Your task to perform on an android device: open a new tab in the chrome app Image 0: 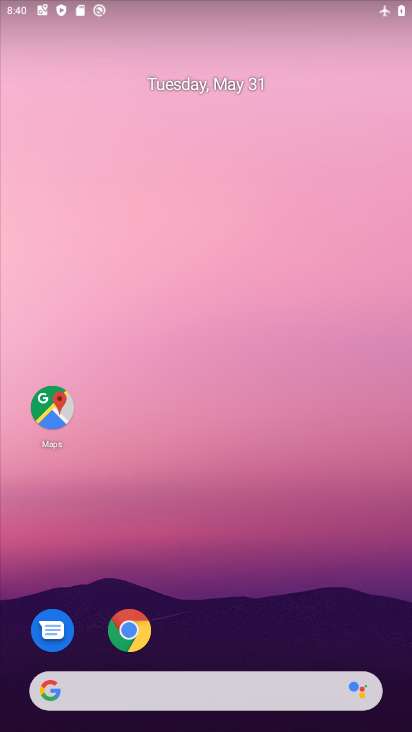
Step 0: click (125, 623)
Your task to perform on an android device: open a new tab in the chrome app Image 1: 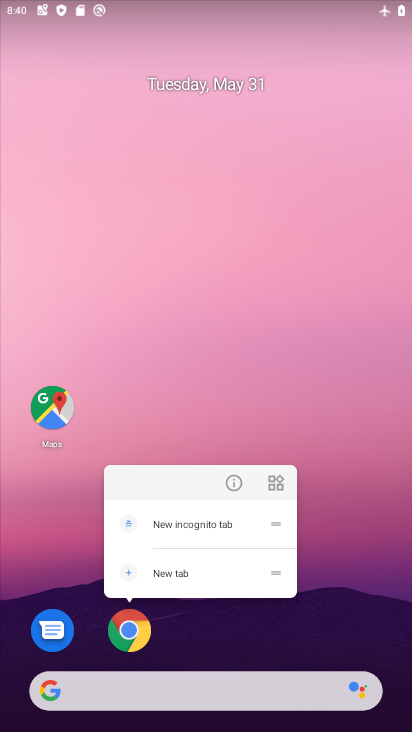
Step 1: click (128, 622)
Your task to perform on an android device: open a new tab in the chrome app Image 2: 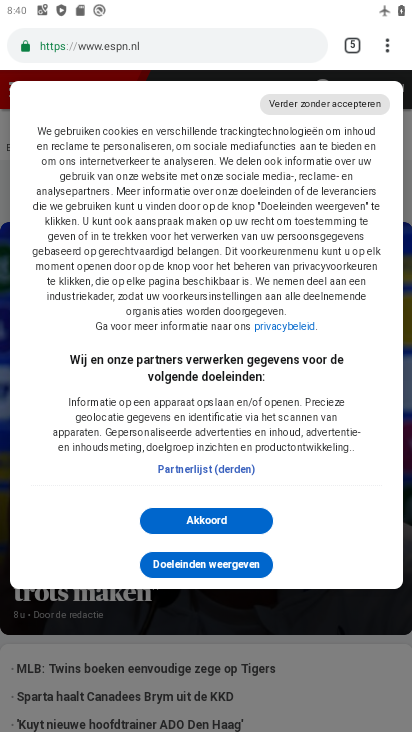
Step 2: click (396, 39)
Your task to perform on an android device: open a new tab in the chrome app Image 3: 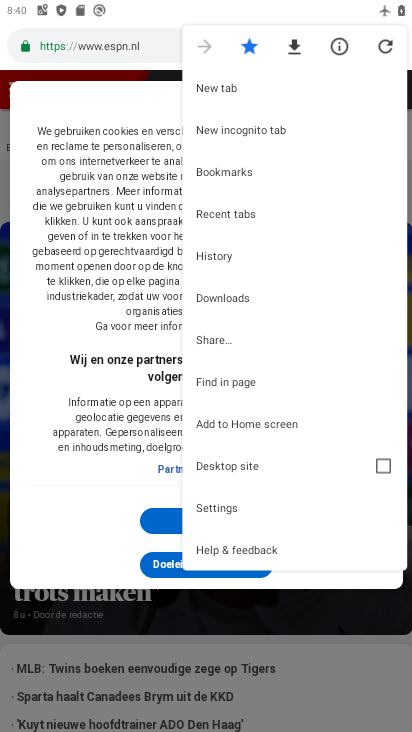
Step 3: click (204, 93)
Your task to perform on an android device: open a new tab in the chrome app Image 4: 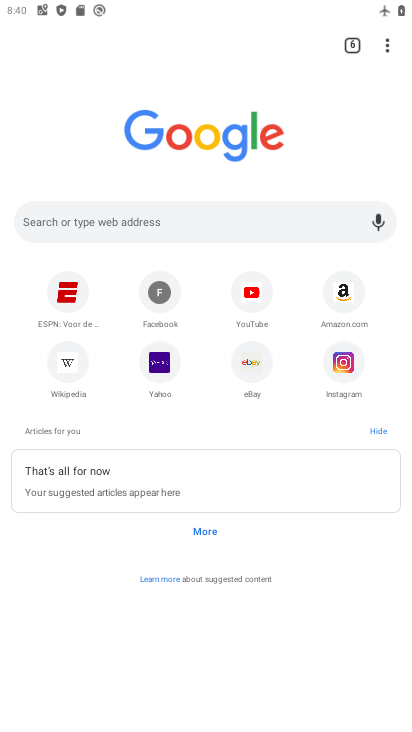
Step 4: task complete